Your task to perform on an android device: toggle translation in the chrome app Image 0: 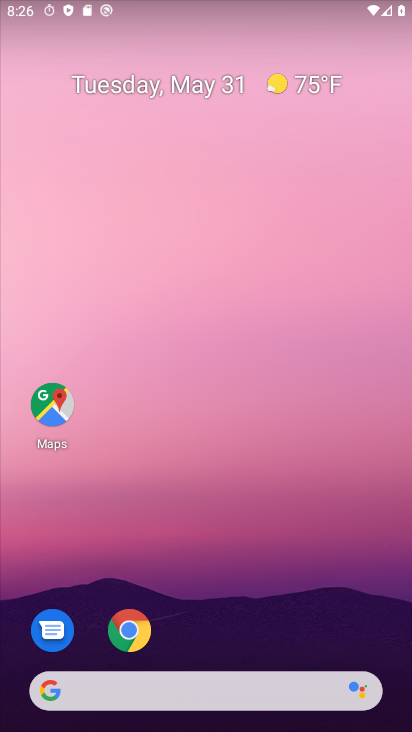
Step 0: drag from (235, 657) to (286, 225)
Your task to perform on an android device: toggle translation in the chrome app Image 1: 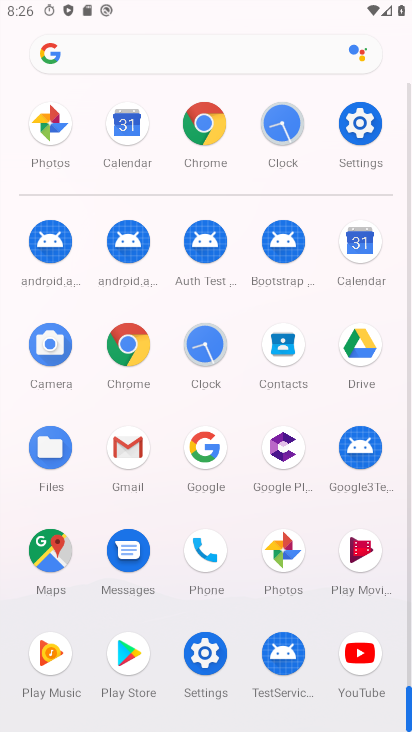
Step 1: click (195, 150)
Your task to perform on an android device: toggle translation in the chrome app Image 2: 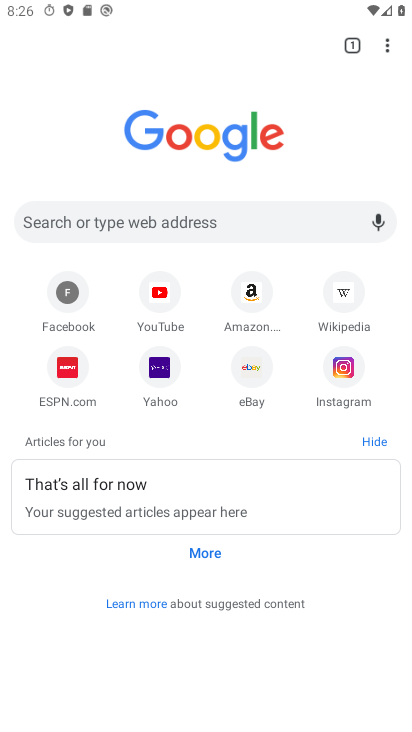
Step 2: click (386, 43)
Your task to perform on an android device: toggle translation in the chrome app Image 3: 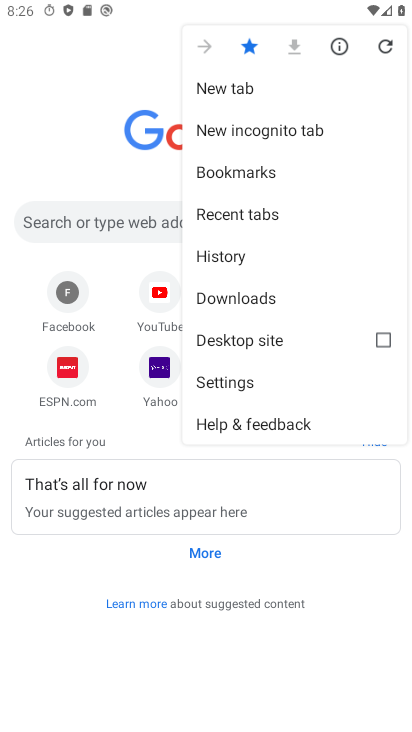
Step 3: task complete